Your task to perform on an android device: open app "Facebook Messenger" (install if not already installed) Image 0: 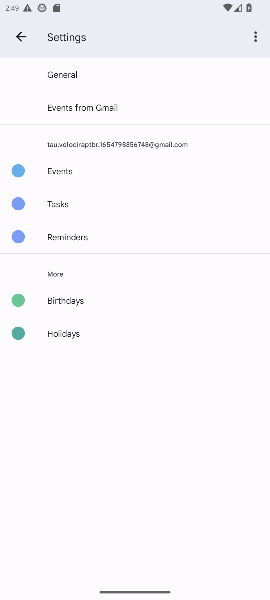
Step 0: press home button
Your task to perform on an android device: open app "Facebook Messenger" (install if not already installed) Image 1: 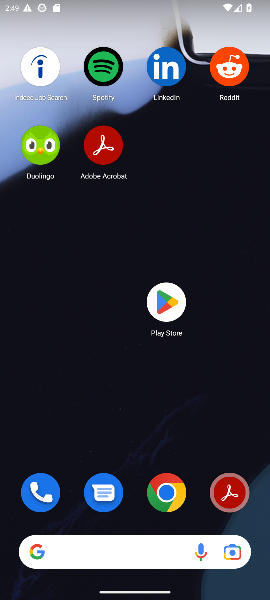
Step 1: click (154, 304)
Your task to perform on an android device: open app "Facebook Messenger" (install if not already installed) Image 2: 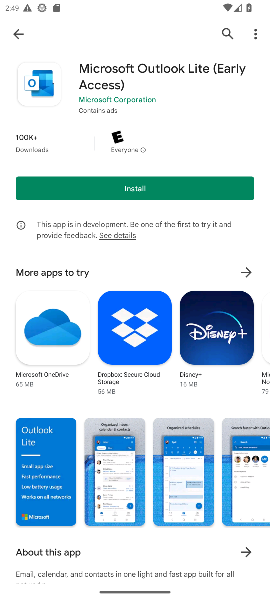
Step 2: click (185, 198)
Your task to perform on an android device: open app "Facebook Messenger" (install if not already installed) Image 3: 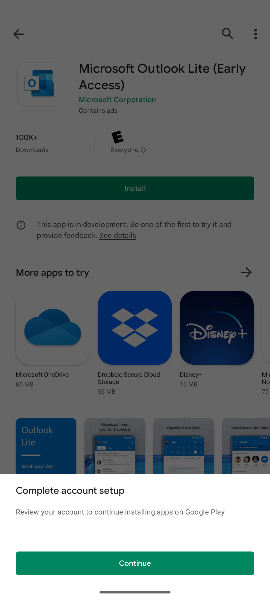
Step 3: click (100, 567)
Your task to perform on an android device: open app "Facebook Messenger" (install if not already installed) Image 4: 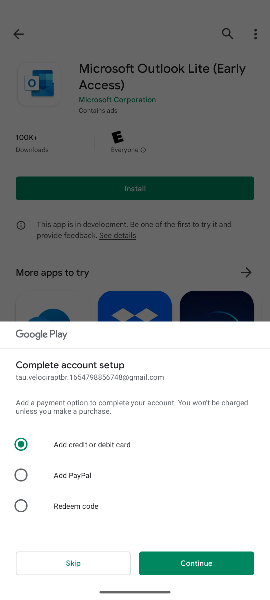
Step 4: click (93, 567)
Your task to perform on an android device: open app "Facebook Messenger" (install if not already installed) Image 5: 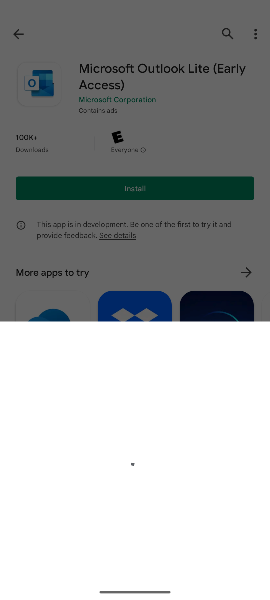
Step 5: click (223, 29)
Your task to perform on an android device: open app "Facebook Messenger" (install if not already installed) Image 6: 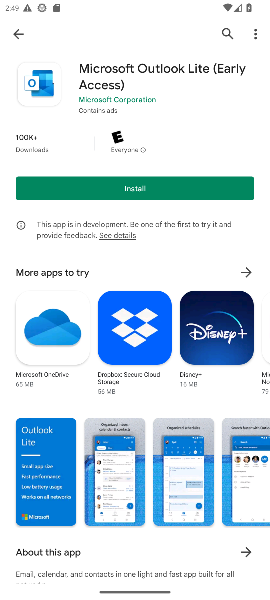
Step 6: click (223, 29)
Your task to perform on an android device: open app "Facebook Messenger" (install if not already installed) Image 7: 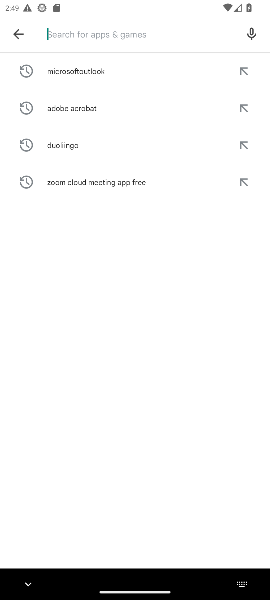
Step 7: type "facebook lte"
Your task to perform on an android device: open app "Facebook Messenger" (install if not already installed) Image 8: 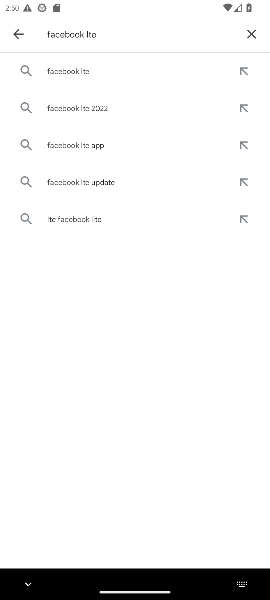
Step 8: click (158, 75)
Your task to perform on an android device: open app "Facebook Messenger" (install if not already installed) Image 9: 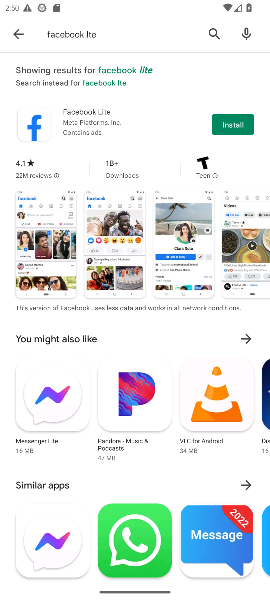
Step 9: click (53, 411)
Your task to perform on an android device: open app "Facebook Messenger" (install if not already installed) Image 10: 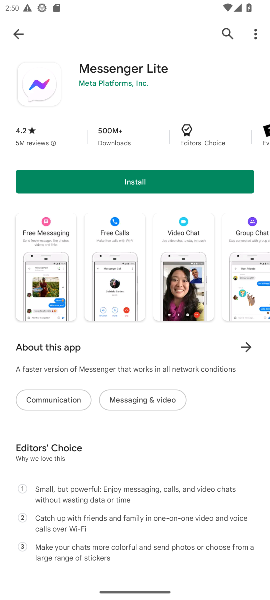
Step 10: click (157, 191)
Your task to perform on an android device: open app "Facebook Messenger" (install if not already installed) Image 11: 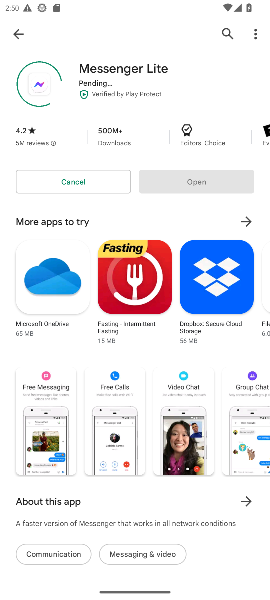
Step 11: task complete